Your task to perform on an android device: Show me recent news Image 0: 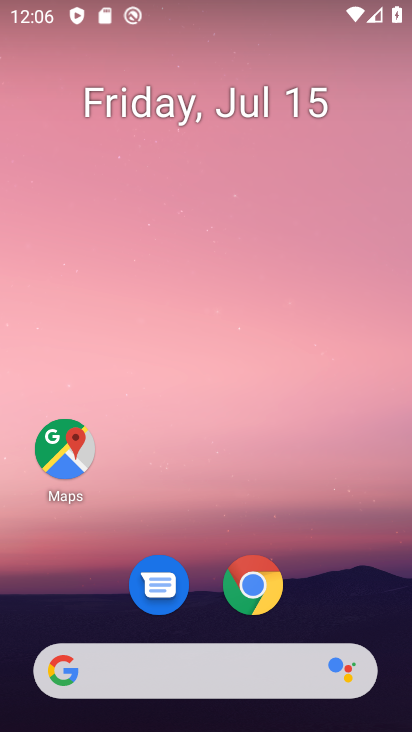
Step 0: click (192, 671)
Your task to perform on an android device: Show me recent news Image 1: 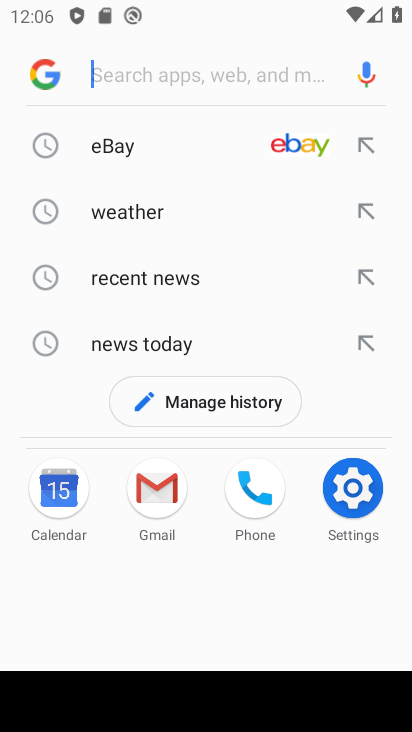
Step 1: click (150, 284)
Your task to perform on an android device: Show me recent news Image 2: 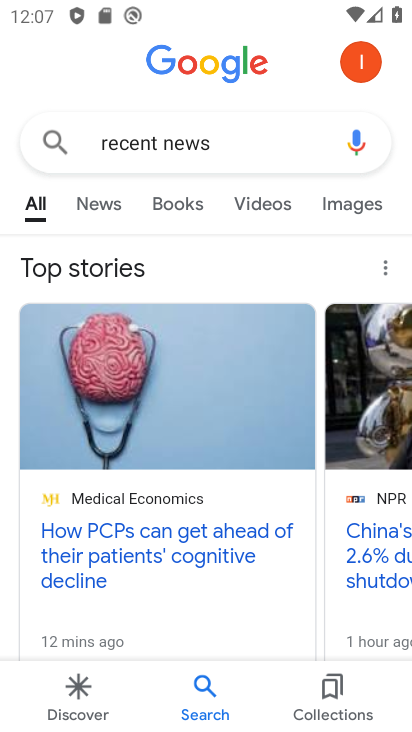
Step 2: click (116, 210)
Your task to perform on an android device: Show me recent news Image 3: 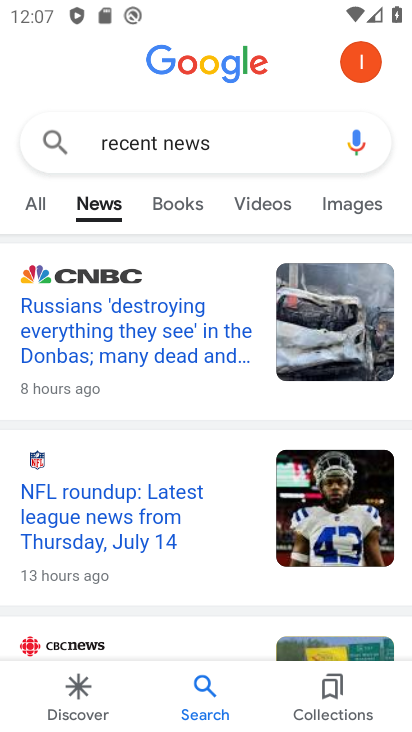
Step 3: task complete